Your task to perform on an android device: Search for jbl flip 4 on newegg.com, select the first entry, add it to the cart, then select checkout. Image 0: 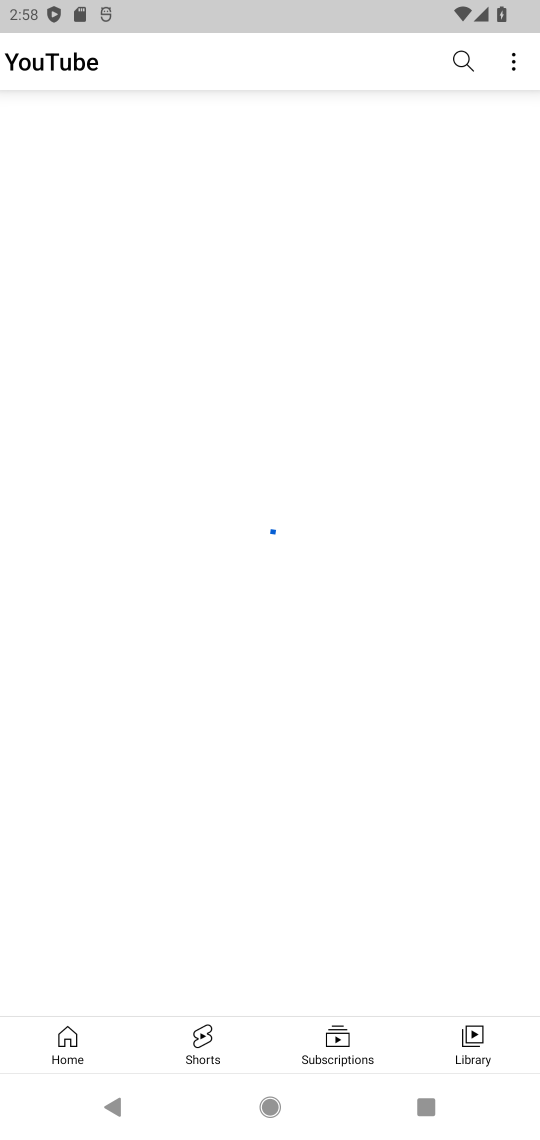
Step 0: click (365, 873)
Your task to perform on an android device: Search for jbl flip 4 on newegg.com, select the first entry, add it to the cart, then select checkout. Image 1: 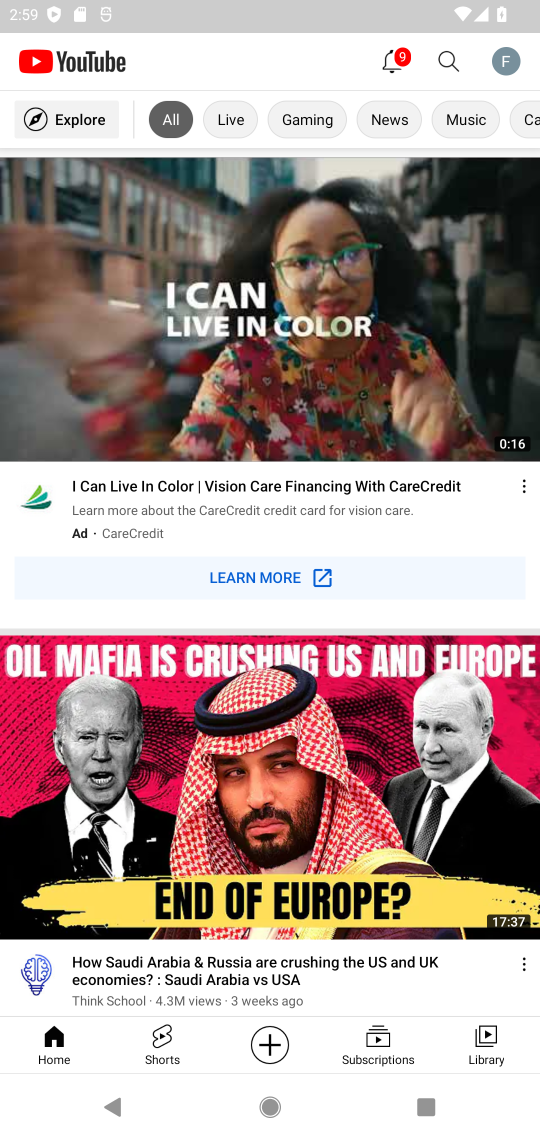
Step 1: press home button
Your task to perform on an android device: Search for jbl flip 4 on newegg.com, select the first entry, add it to the cart, then select checkout. Image 2: 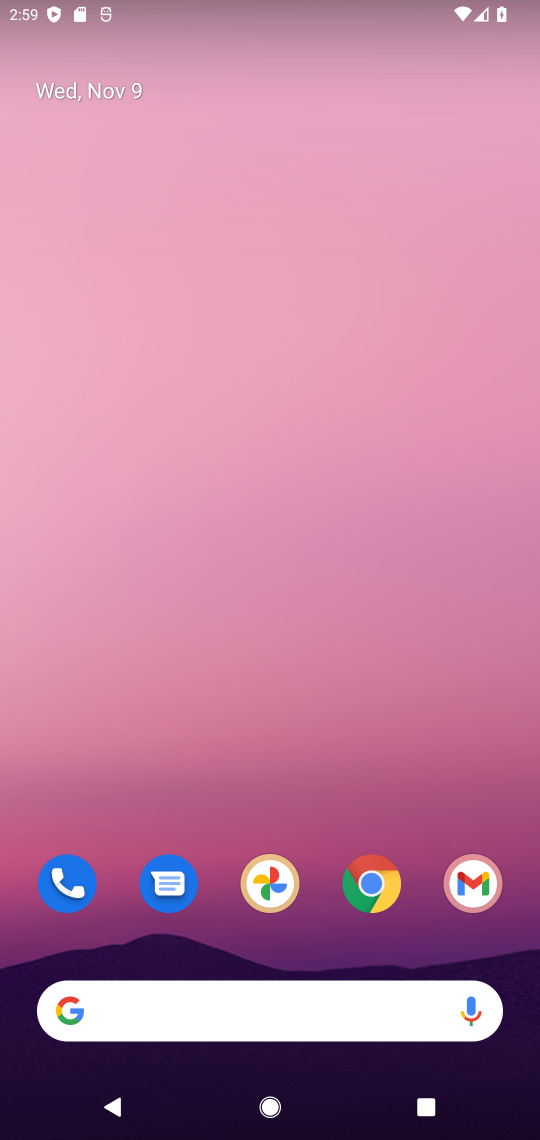
Step 2: click (350, 898)
Your task to perform on an android device: Search for jbl flip 4 on newegg.com, select the first entry, add it to the cart, then select checkout. Image 3: 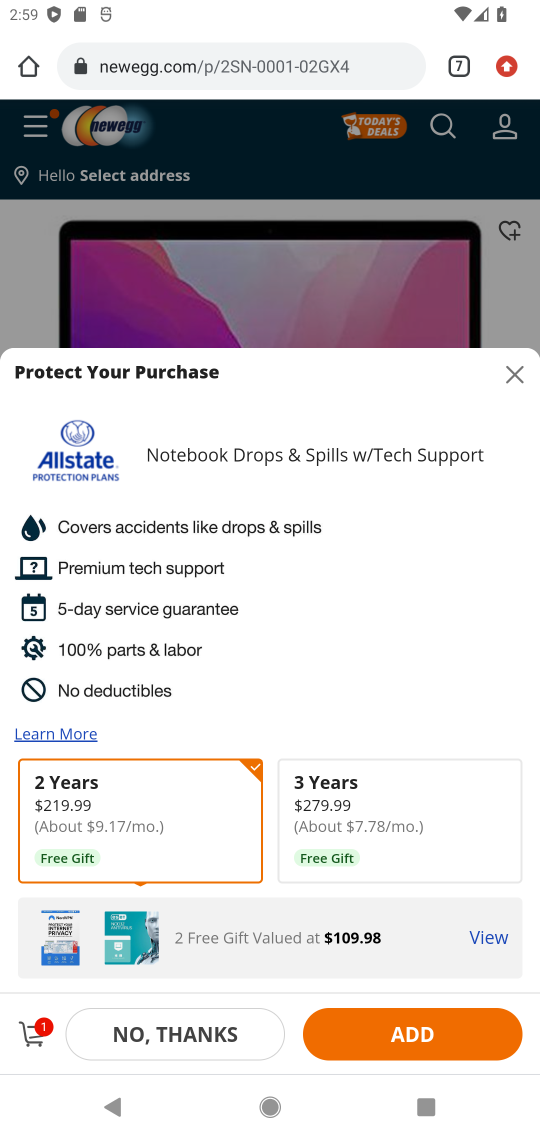
Step 3: click (509, 369)
Your task to perform on an android device: Search for jbl flip 4 on newegg.com, select the first entry, add it to the cart, then select checkout. Image 4: 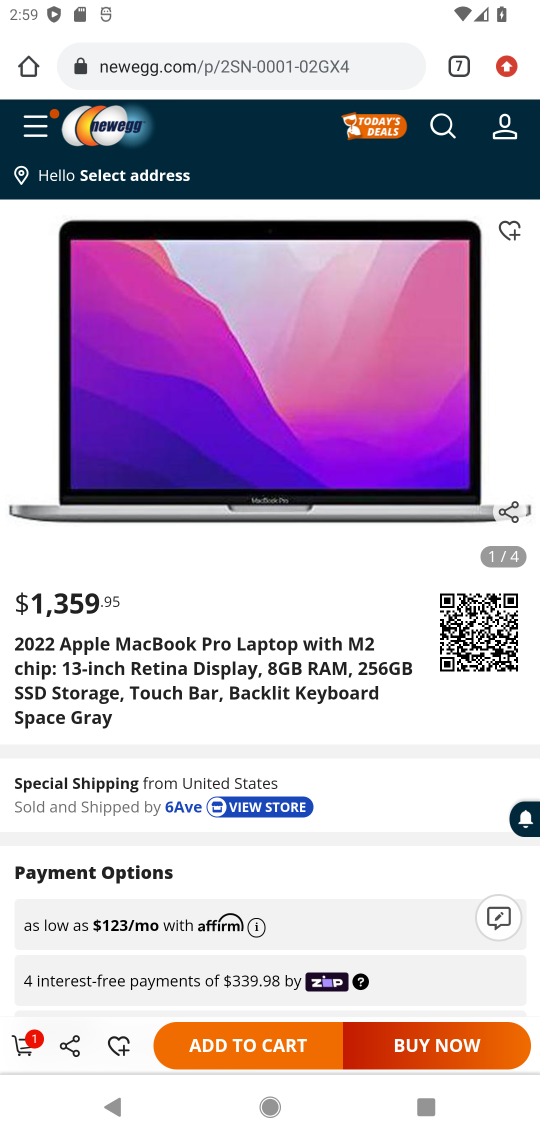
Step 4: click (443, 123)
Your task to perform on an android device: Search for jbl flip 4 on newegg.com, select the first entry, add it to the cart, then select checkout. Image 5: 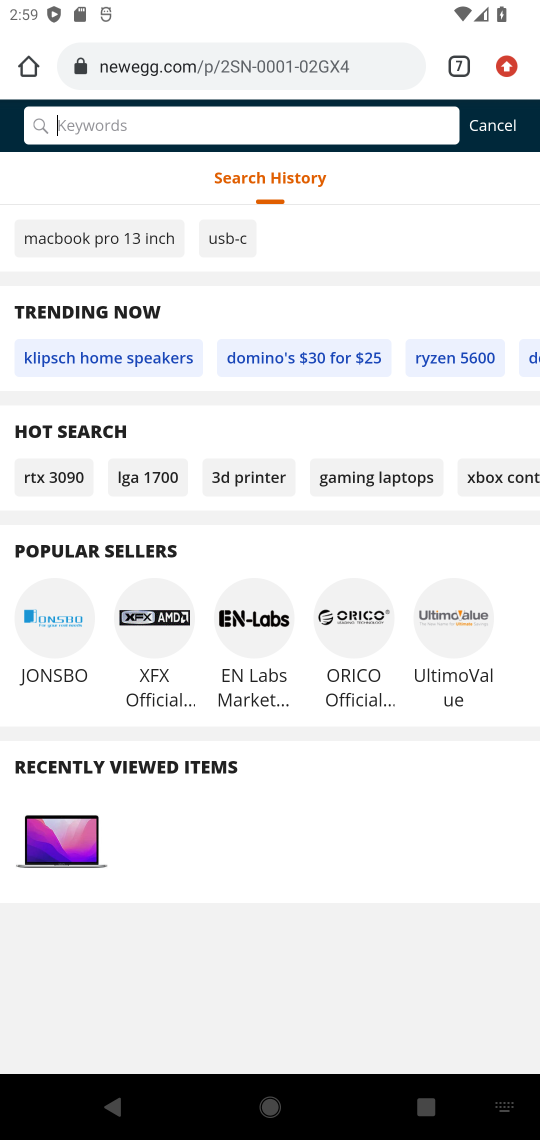
Step 5: type "jbl flip 4"
Your task to perform on an android device: Search for jbl flip 4 on newegg.com, select the first entry, add it to the cart, then select checkout. Image 6: 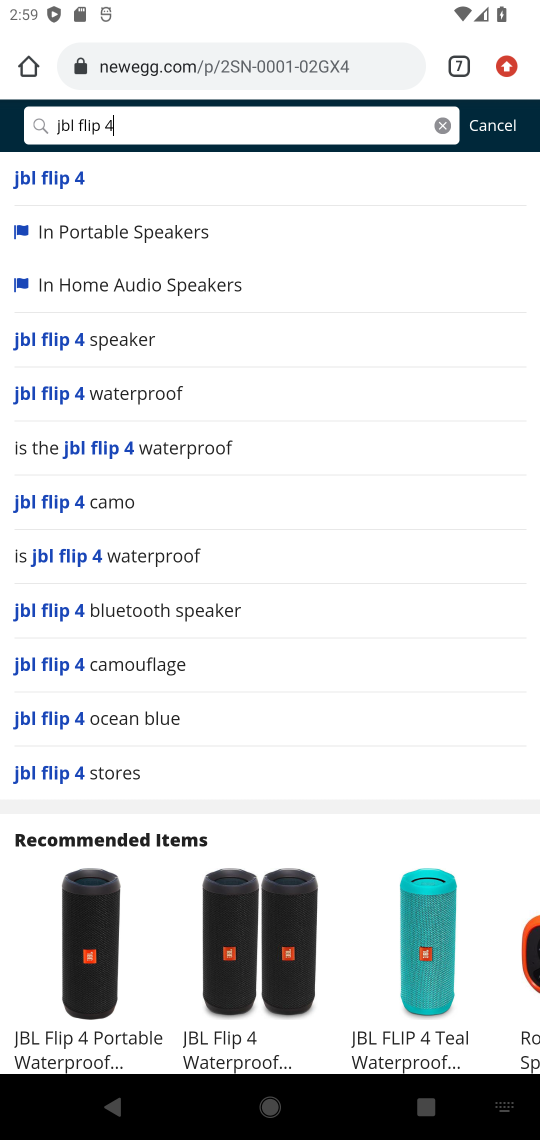
Step 6: click (24, 180)
Your task to perform on an android device: Search for jbl flip 4 on newegg.com, select the first entry, add it to the cart, then select checkout. Image 7: 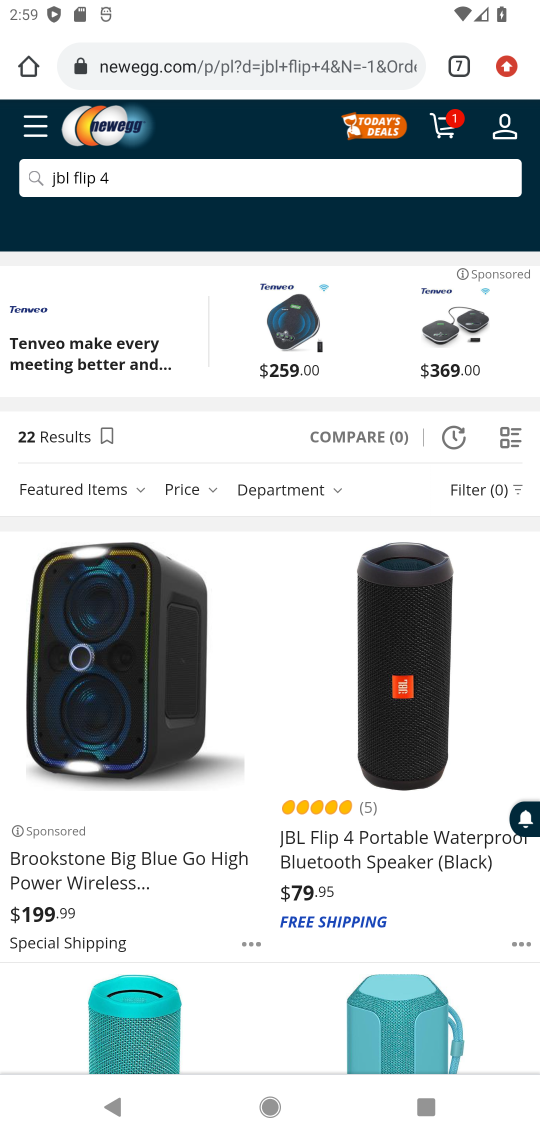
Step 7: click (23, 179)
Your task to perform on an android device: Search for jbl flip 4 on newegg.com, select the first entry, add it to the cart, then select checkout. Image 8: 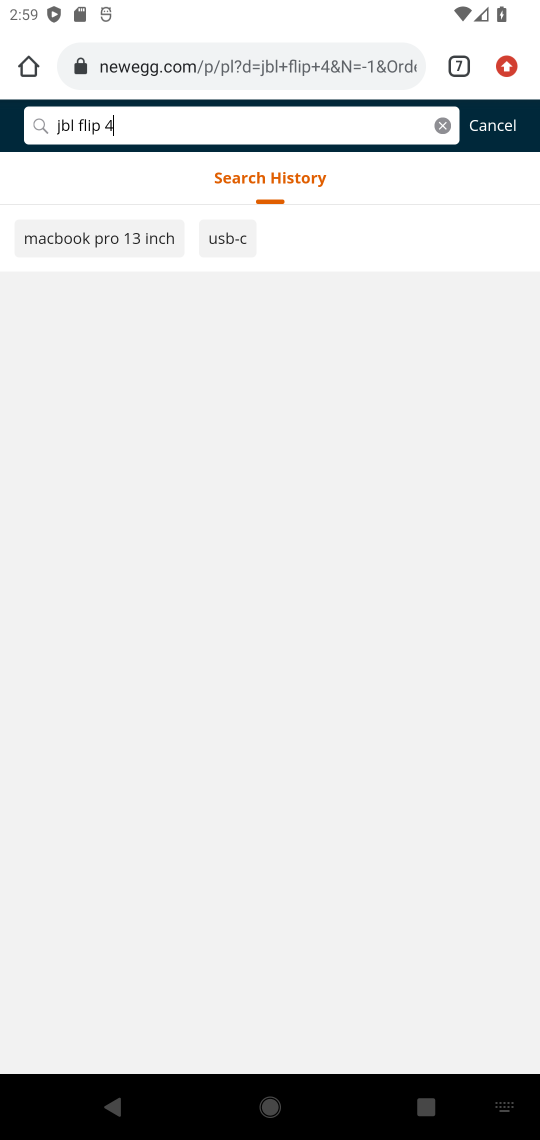
Step 8: click (370, 839)
Your task to perform on an android device: Search for jbl flip 4 on newegg.com, select the first entry, add it to the cart, then select checkout. Image 9: 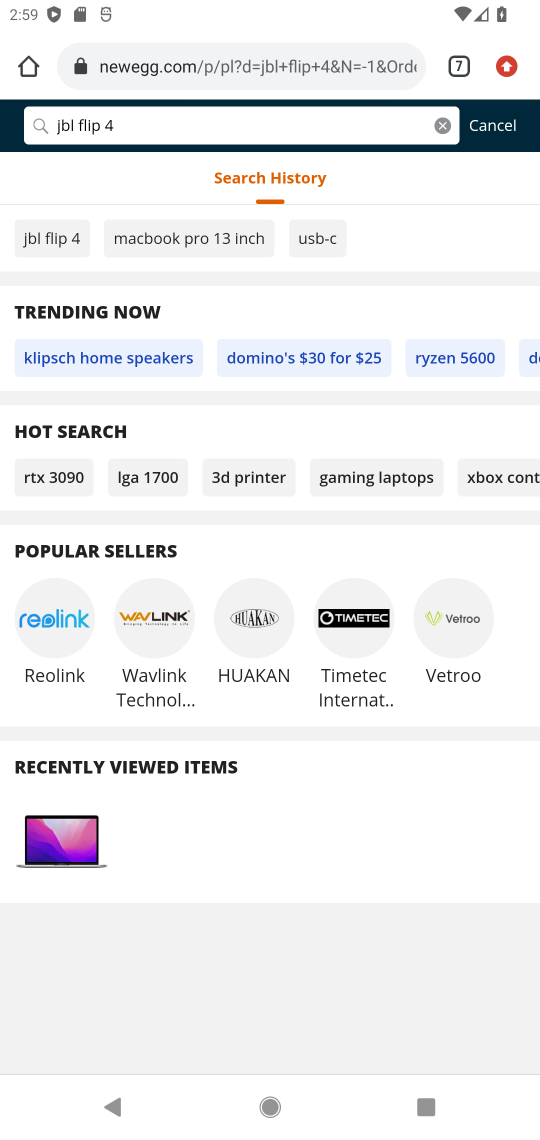
Step 9: click (43, 246)
Your task to perform on an android device: Search for jbl flip 4 on newegg.com, select the first entry, add it to the cart, then select checkout. Image 10: 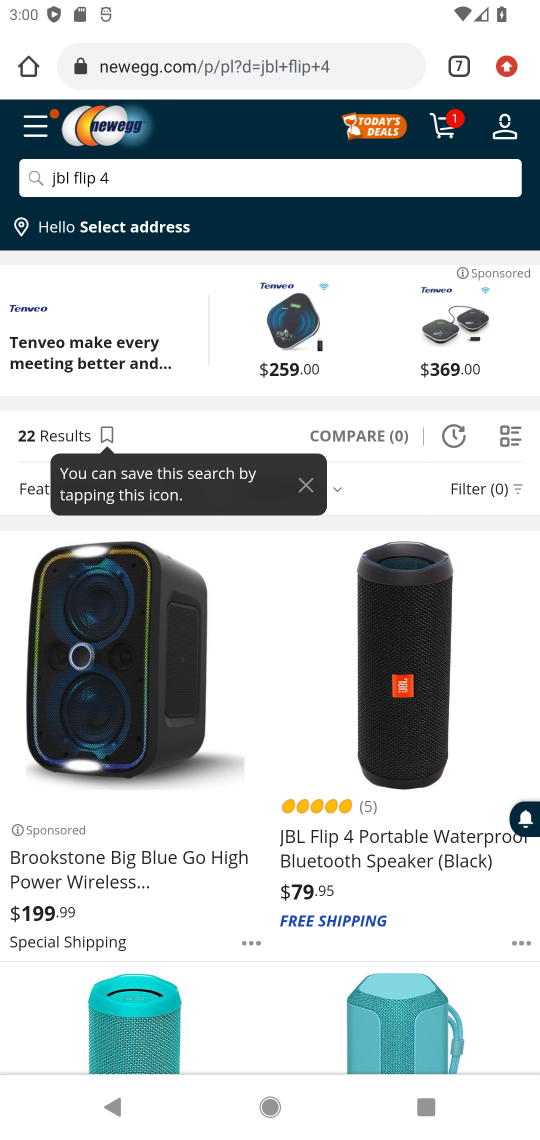
Step 10: click (376, 854)
Your task to perform on an android device: Search for jbl flip 4 on newegg.com, select the first entry, add it to the cart, then select checkout. Image 11: 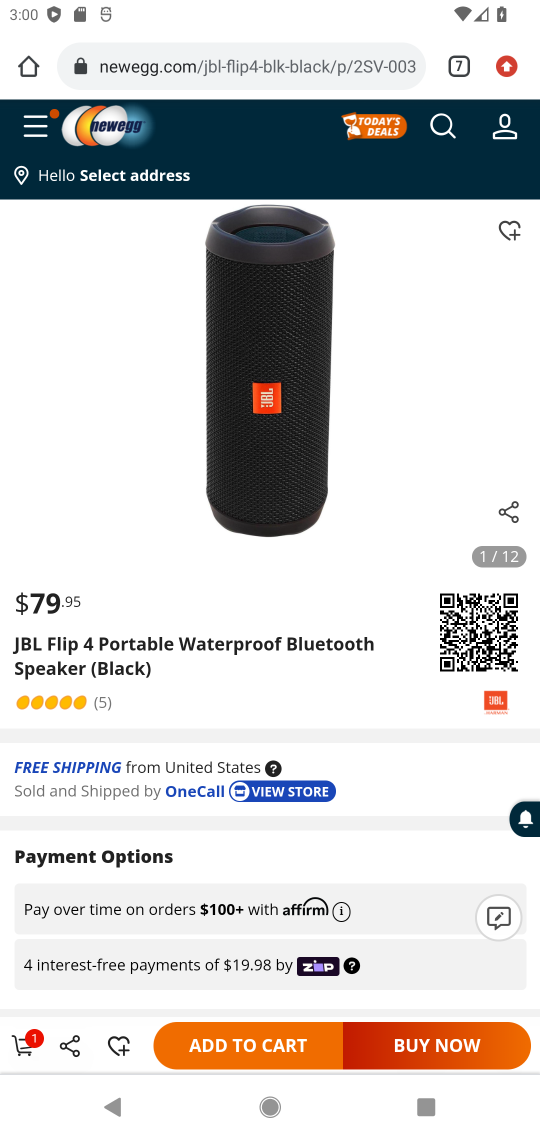
Step 11: click (300, 1040)
Your task to perform on an android device: Search for jbl flip 4 on newegg.com, select the first entry, add it to the cart, then select checkout. Image 12: 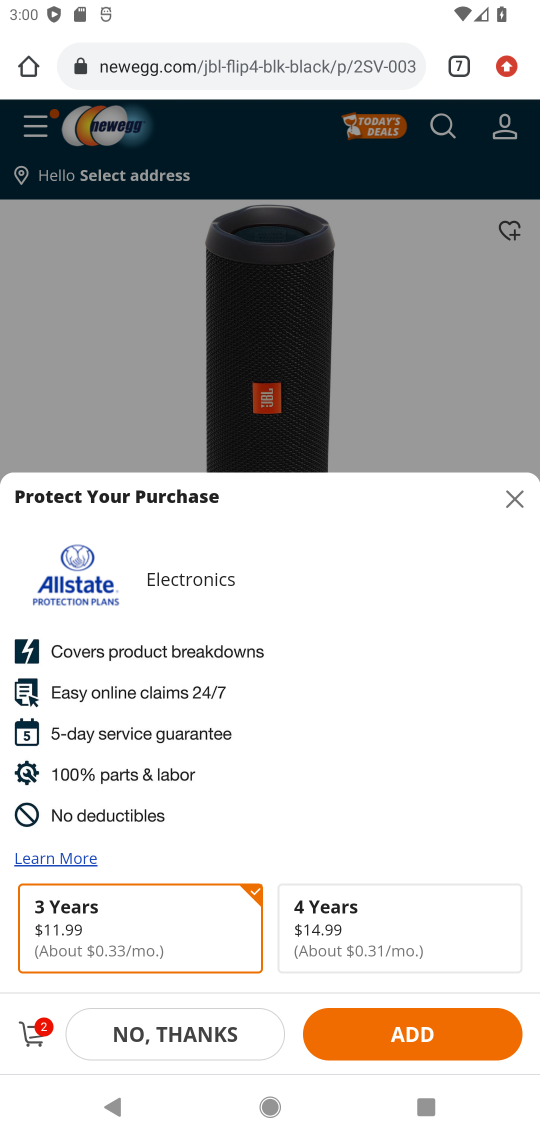
Step 12: click (33, 1034)
Your task to perform on an android device: Search for jbl flip 4 on newegg.com, select the first entry, add it to the cart, then select checkout. Image 13: 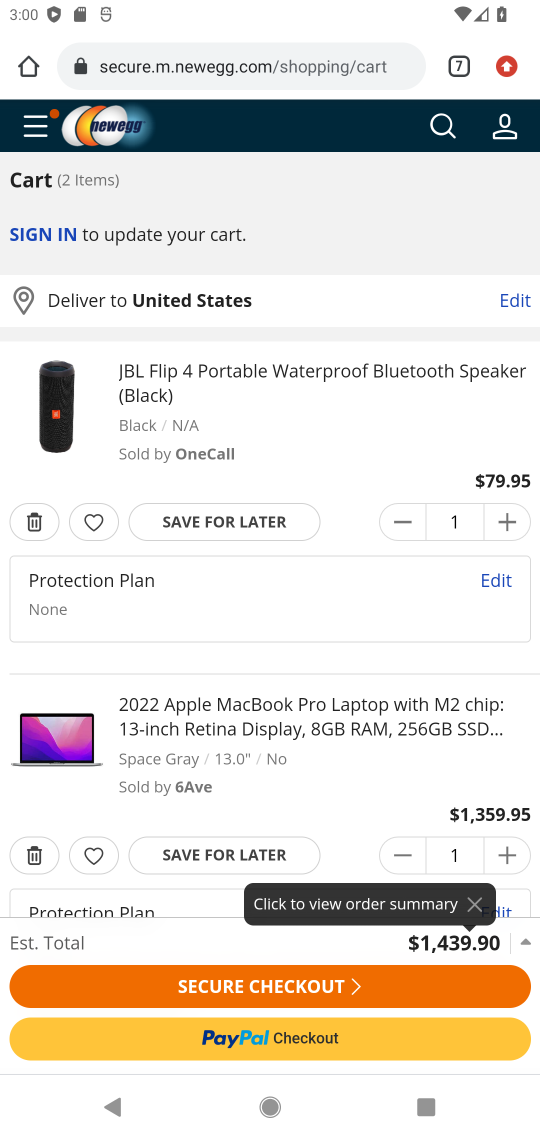
Step 13: click (210, 983)
Your task to perform on an android device: Search for jbl flip 4 on newegg.com, select the first entry, add it to the cart, then select checkout. Image 14: 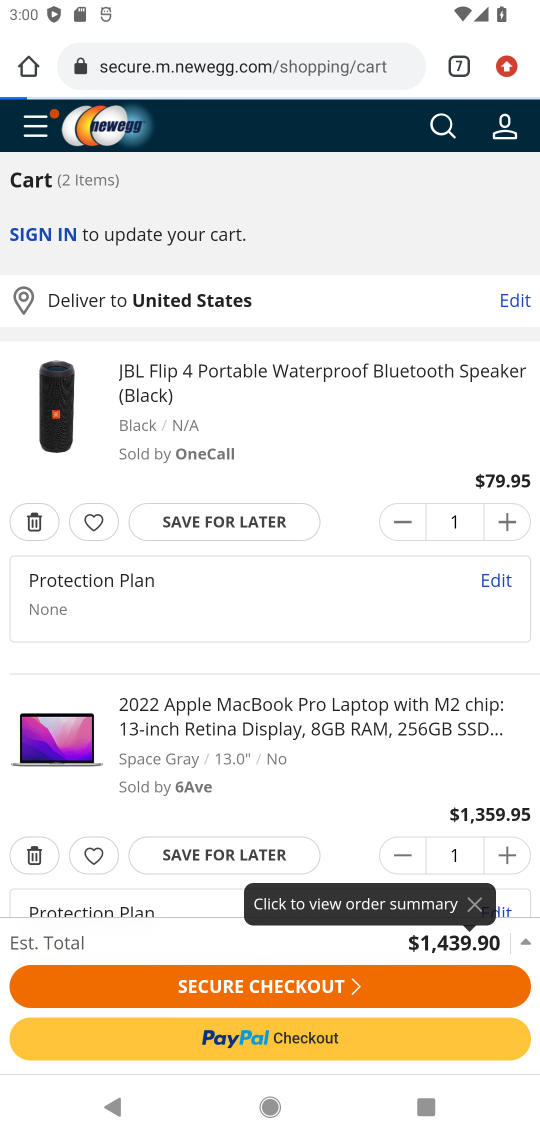
Step 14: task complete